Your task to perform on an android device: Go to Google maps Image 0: 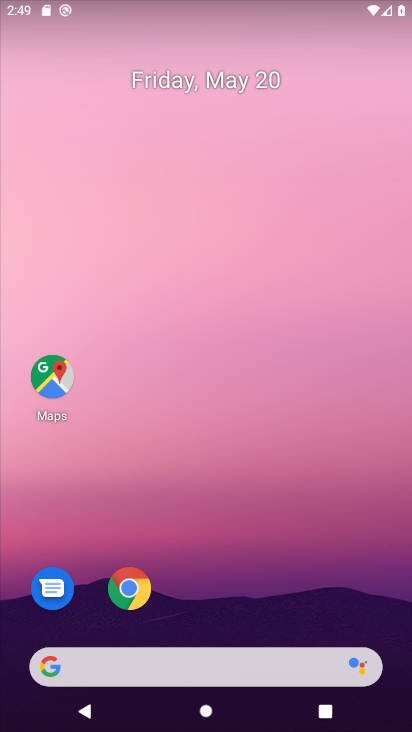
Step 0: click (51, 375)
Your task to perform on an android device: Go to Google maps Image 1: 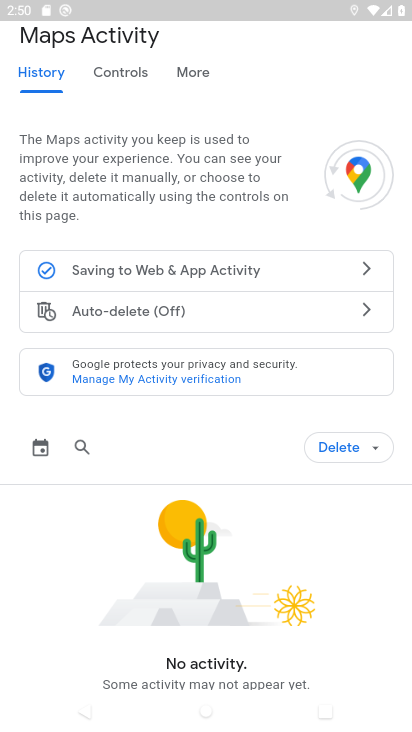
Step 1: task complete